Your task to perform on an android device: allow notifications from all sites in the chrome app Image 0: 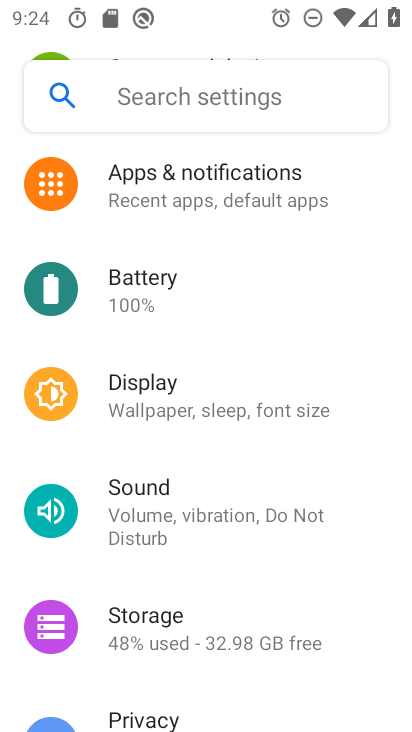
Step 0: press home button
Your task to perform on an android device: allow notifications from all sites in the chrome app Image 1: 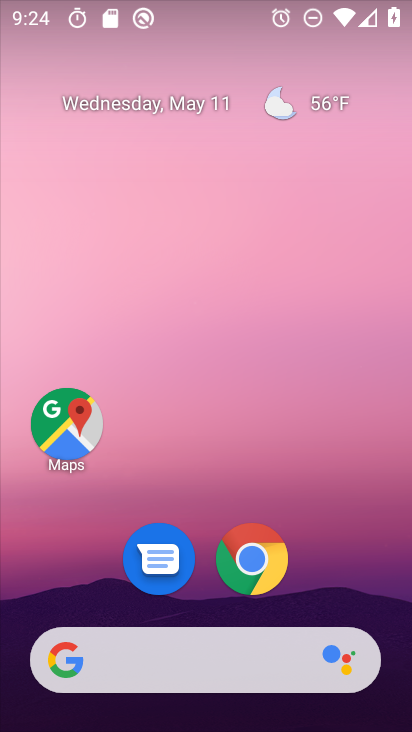
Step 1: click (243, 557)
Your task to perform on an android device: allow notifications from all sites in the chrome app Image 2: 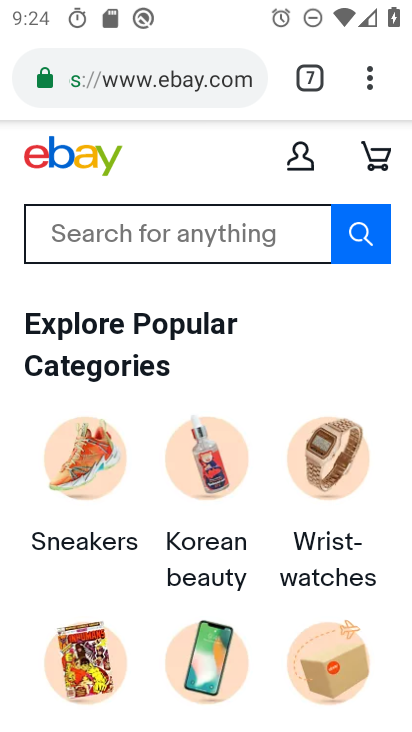
Step 2: click (379, 69)
Your task to perform on an android device: allow notifications from all sites in the chrome app Image 3: 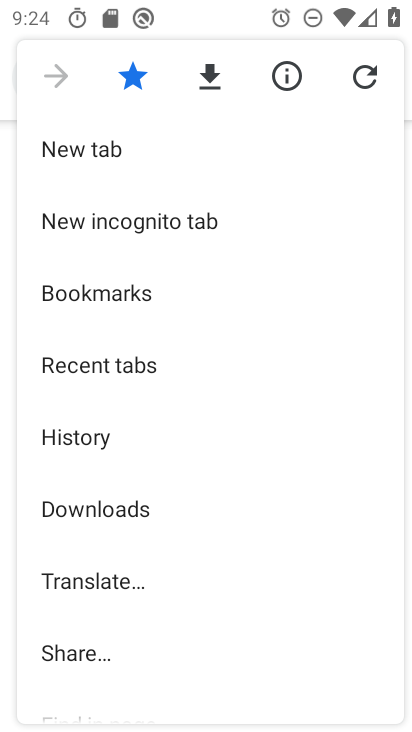
Step 3: drag from (198, 608) to (277, 229)
Your task to perform on an android device: allow notifications from all sites in the chrome app Image 4: 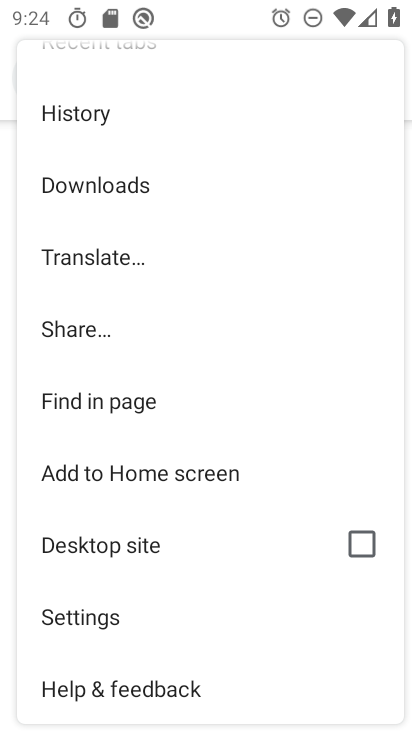
Step 4: click (118, 616)
Your task to perform on an android device: allow notifications from all sites in the chrome app Image 5: 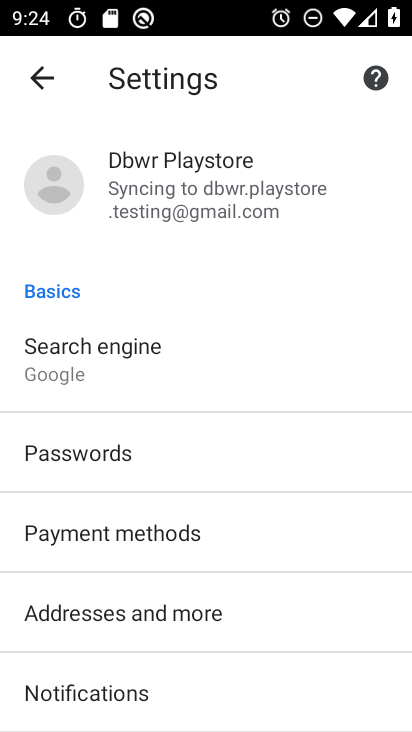
Step 5: drag from (272, 640) to (246, 292)
Your task to perform on an android device: allow notifications from all sites in the chrome app Image 6: 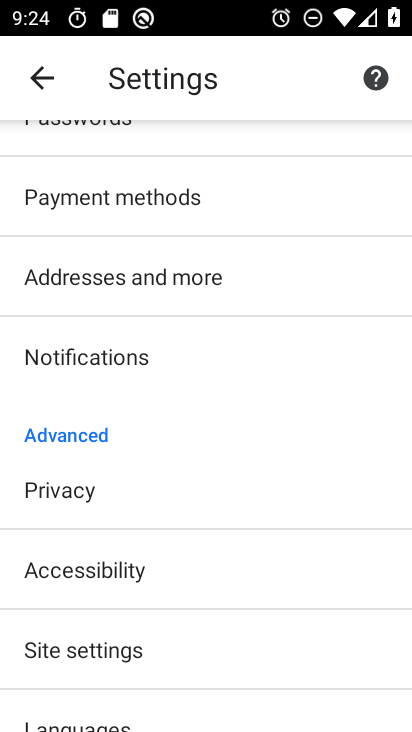
Step 6: click (176, 359)
Your task to perform on an android device: allow notifications from all sites in the chrome app Image 7: 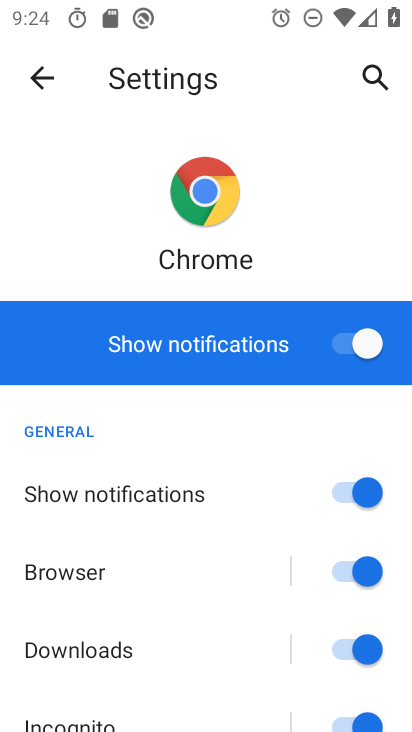
Step 7: drag from (221, 531) to (259, 142)
Your task to perform on an android device: allow notifications from all sites in the chrome app Image 8: 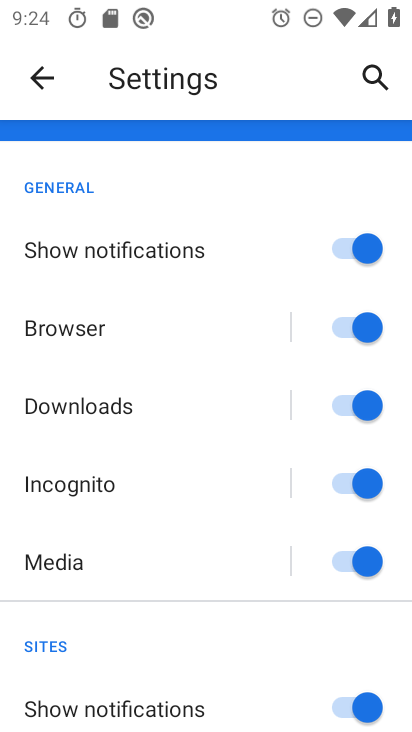
Step 8: drag from (227, 616) to (264, 398)
Your task to perform on an android device: allow notifications from all sites in the chrome app Image 9: 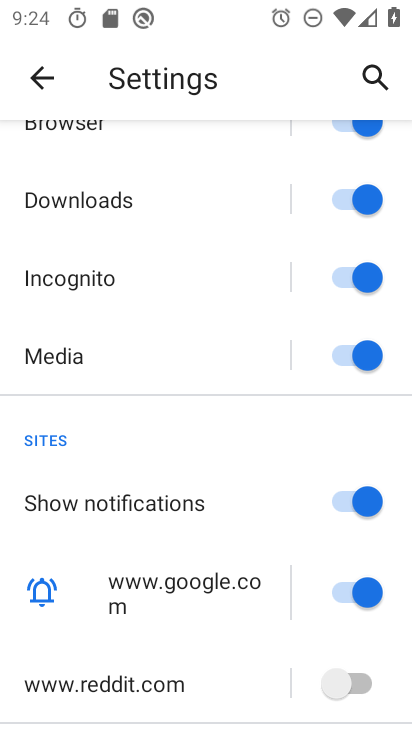
Step 9: drag from (271, 646) to (313, 374)
Your task to perform on an android device: allow notifications from all sites in the chrome app Image 10: 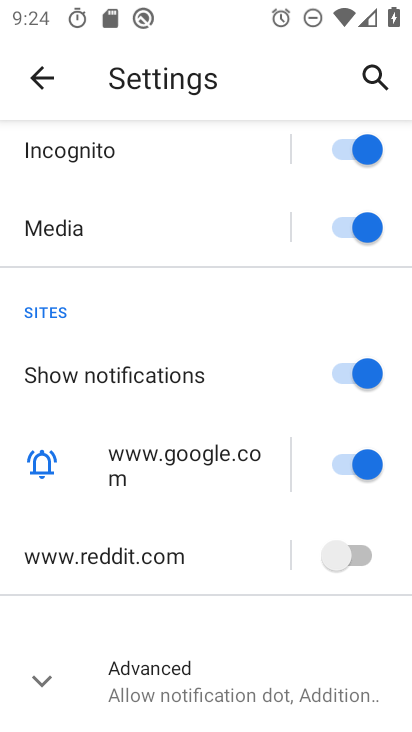
Step 10: click (367, 554)
Your task to perform on an android device: allow notifications from all sites in the chrome app Image 11: 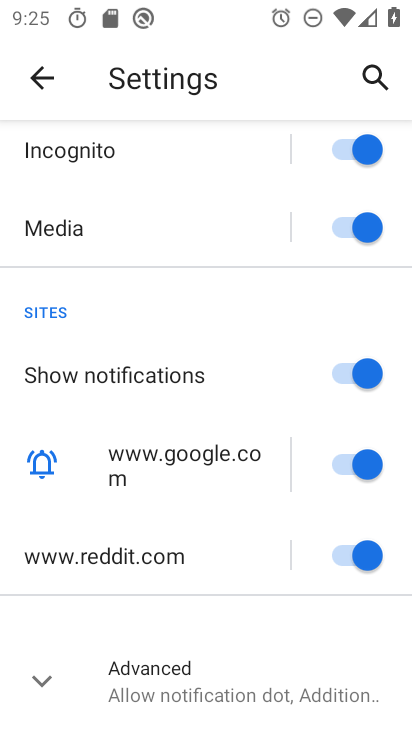
Step 11: click (252, 695)
Your task to perform on an android device: allow notifications from all sites in the chrome app Image 12: 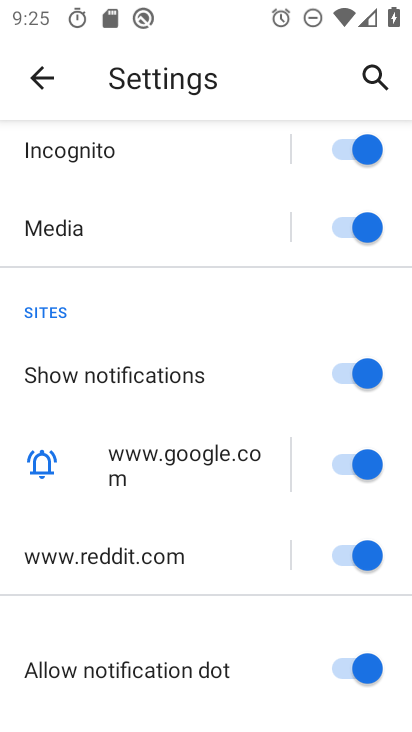
Step 12: task complete